Your task to perform on an android device: Go to wifi settings Image 0: 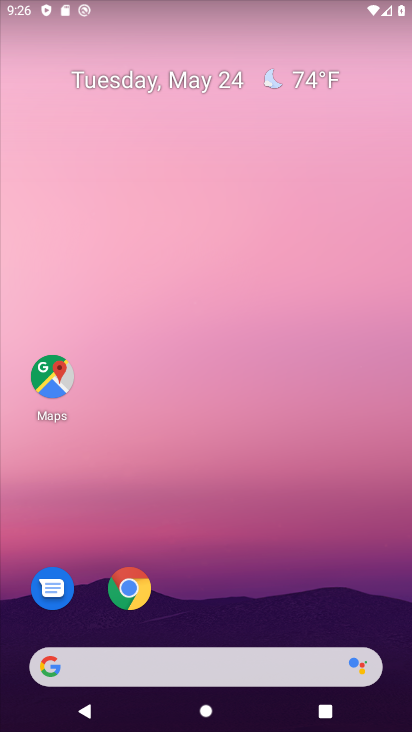
Step 0: drag from (241, 6) to (202, 496)
Your task to perform on an android device: Go to wifi settings Image 1: 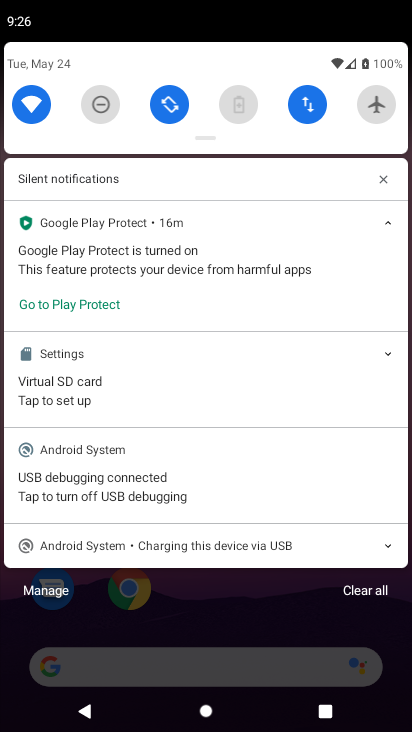
Step 1: click (39, 119)
Your task to perform on an android device: Go to wifi settings Image 2: 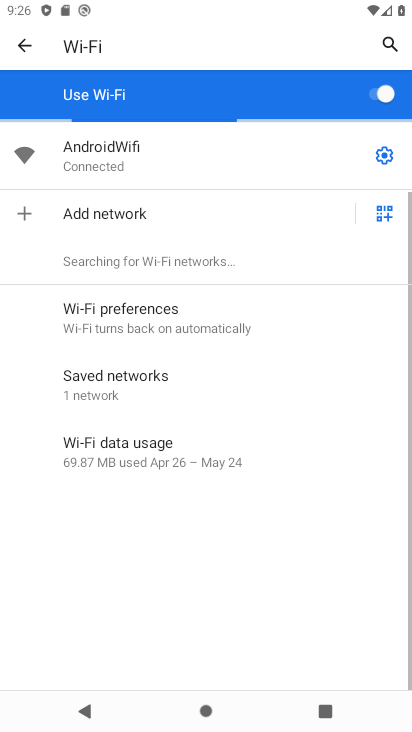
Step 2: task complete